Your task to perform on an android device: snooze an email in the gmail app Image 0: 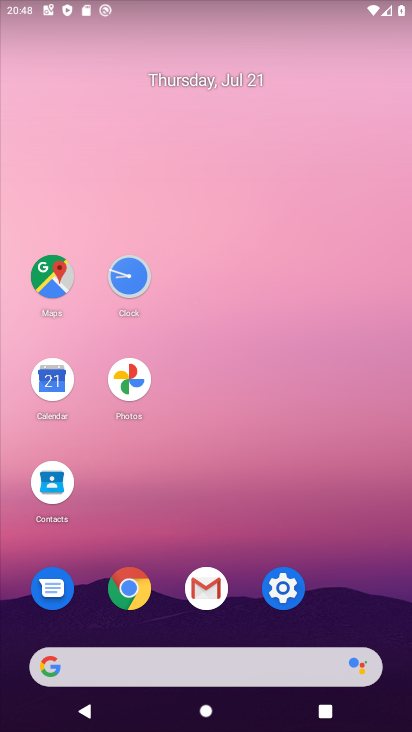
Step 0: click (203, 585)
Your task to perform on an android device: snooze an email in the gmail app Image 1: 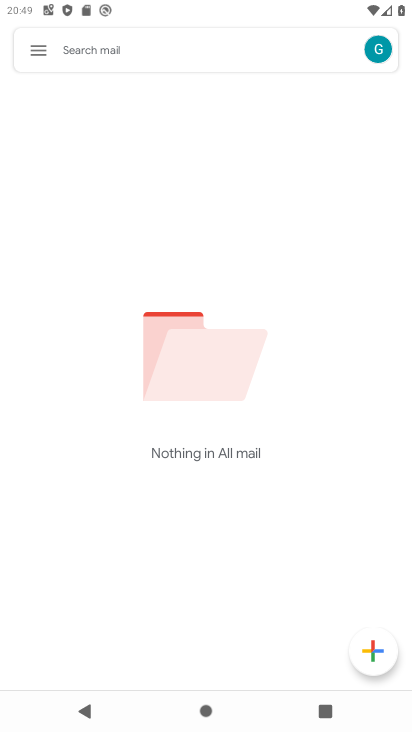
Step 1: task complete